Your task to perform on an android device: toggle priority inbox in the gmail app Image 0: 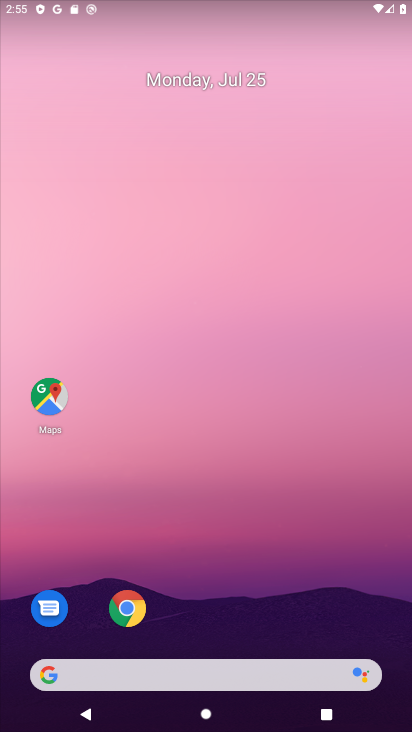
Step 0: drag from (19, 604) to (267, 21)
Your task to perform on an android device: toggle priority inbox in the gmail app Image 1: 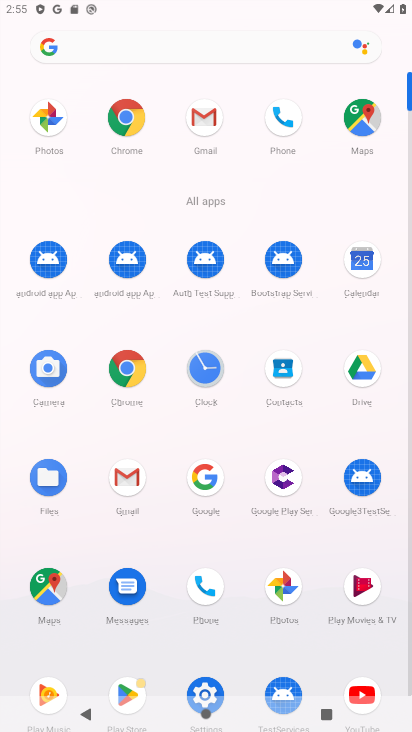
Step 1: click (203, 125)
Your task to perform on an android device: toggle priority inbox in the gmail app Image 2: 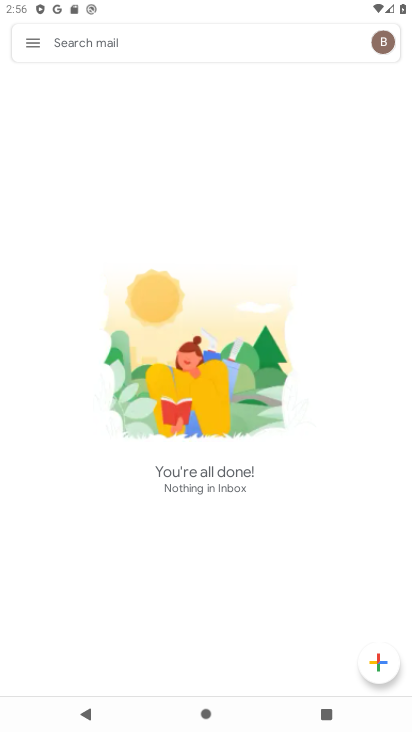
Step 2: click (37, 44)
Your task to perform on an android device: toggle priority inbox in the gmail app Image 3: 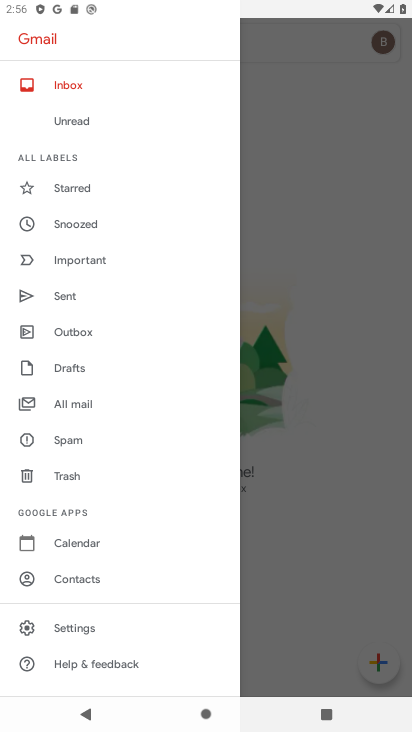
Step 3: click (51, 621)
Your task to perform on an android device: toggle priority inbox in the gmail app Image 4: 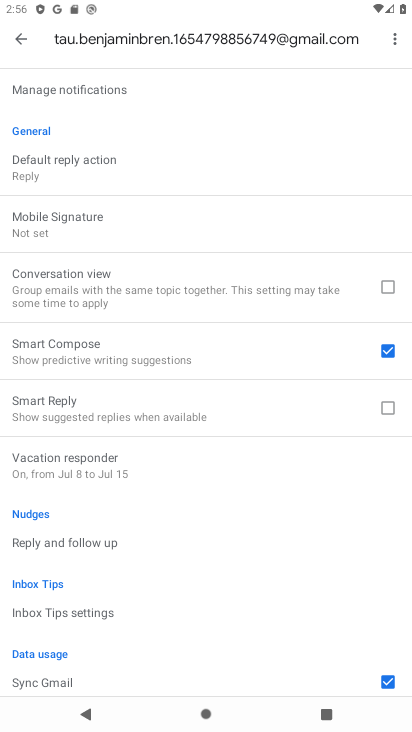
Step 4: drag from (132, 146) to (34, 675)
Your task to perform on an android device: toggle priority inbox in the gmail app Image 5: 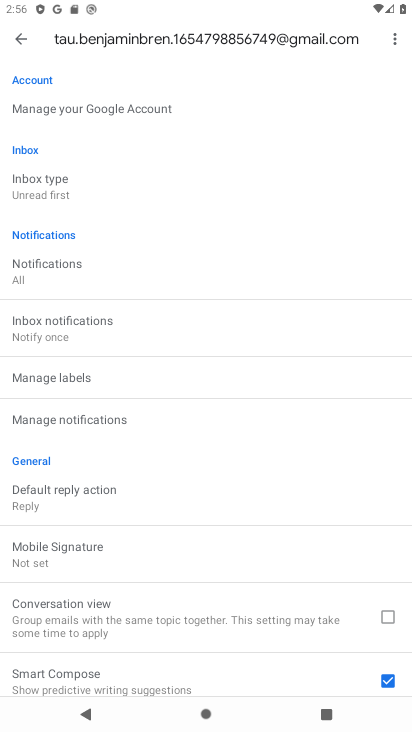
Step 5: drag from (170, 192) to (65, 686)
Your task to perform on an android device: toggle priority inbox in the gmail app Image 6: 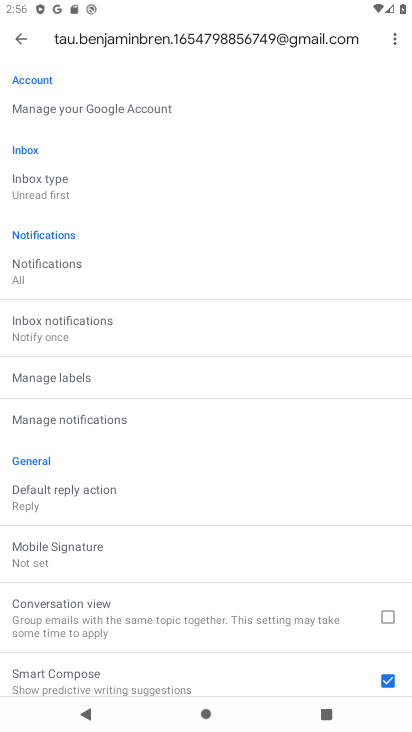
Step 6: click (94, 183)
Your task to perform on an android device: toggle priority inbox in the gmail app Image 7: 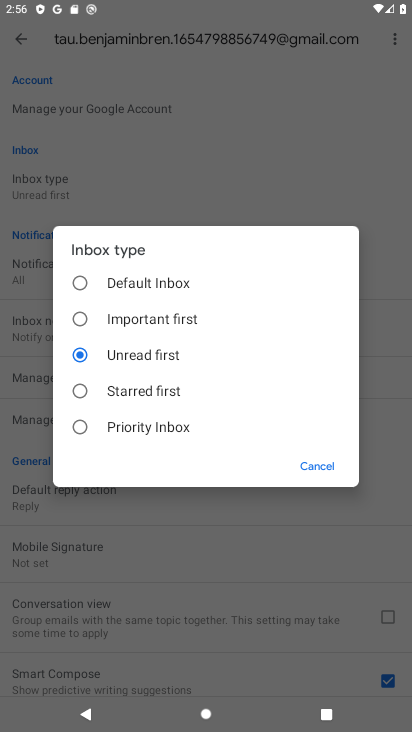
Step 7: click (169, 424)
Your task to perform on an android device: toggle priority inbox in the gmail app Image 8: 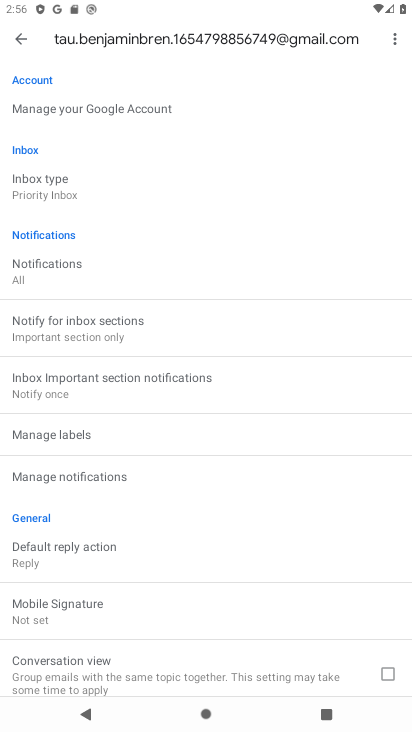
Step 8: task complete